Your task to perform on an android device: Search for the best selling TV on Best Buy. Image 0: 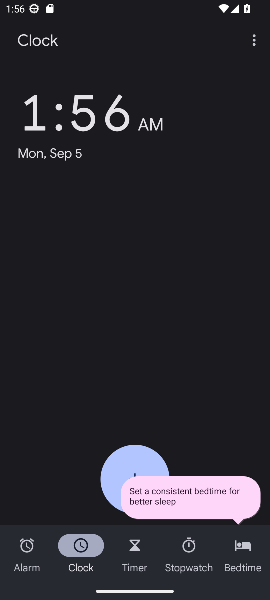
Step 0: press home button
Your task to perform on an android device: Search for the best selling TV on Best Buy. Image 1: 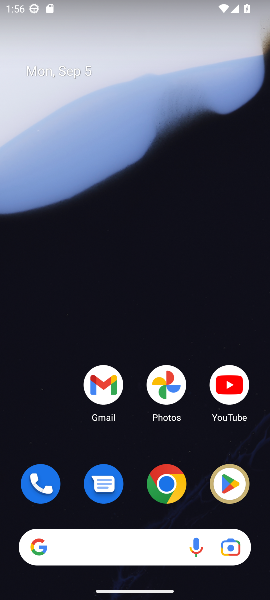
Step 1: click (168, 484)
Your task to perform on an android device: Search for the best selling TV on Best Buy. Image 2: 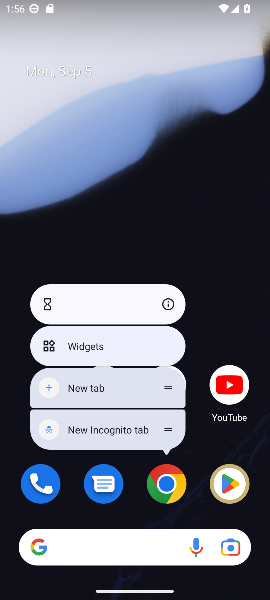
Step 2: click (167, 490)
Your task to perform on an android device: Search for the best selling TV on Best Buy. Image 3: 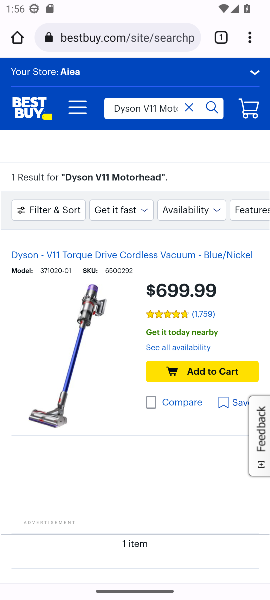
Step 3: click (191, 104)
Your task to perform on an android device: Search for the best selling TV on Best Buy. Image 4: 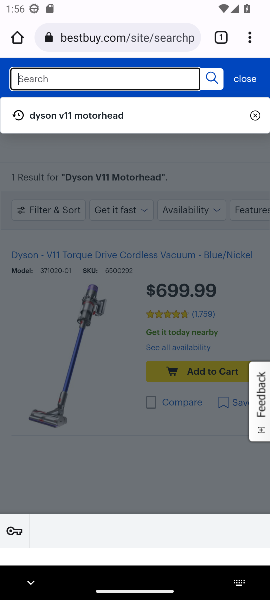
Step 4: type "best selling TV"
Your task to perform on an android device: Search for the best selling TV on Best Buy. Image 5: 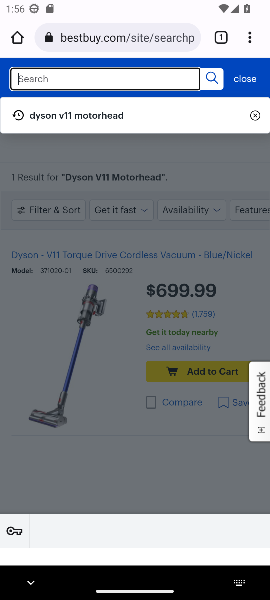
Step 5: press enter
Your task to perform on an android device: Search for the best selling TV on Best Buy. Image 6: 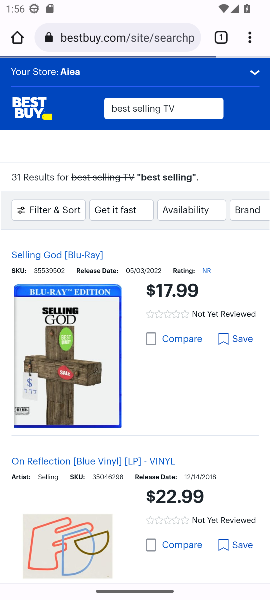
Step 6: drag from (134, 542) to (183, 241)
Your task to perform on an android device: Search for the best selling TV on Best Buy. Image 7: 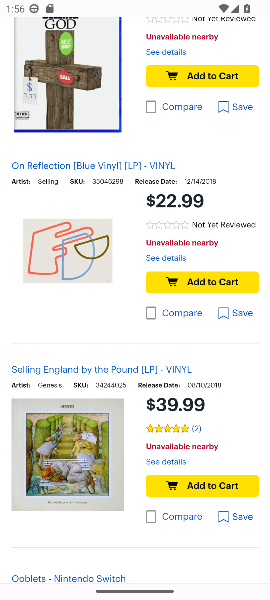
Step 7: drag from (169, 471) to (139, 525)
Your task to perform on an android device: Search for the best selling TV on Best Buy. Image 8: 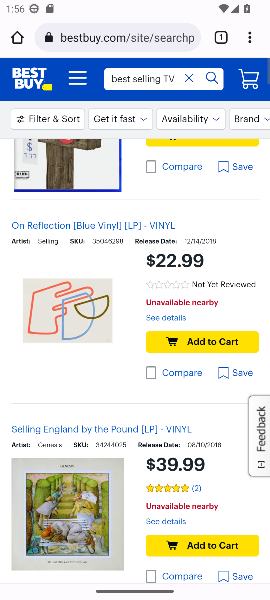
Step 8: click (191, 73)
Your task to perform on an android device: Search for the best selling TV on Best Buy. Image 9: 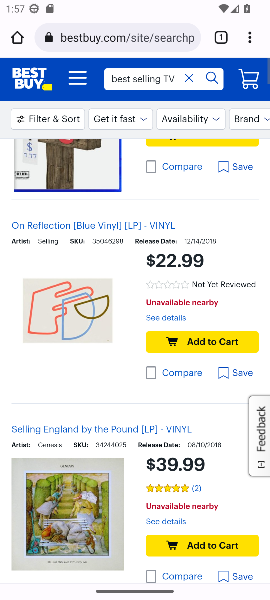
Step 9: click (191, 72)
Your task to perform on an android device: Search for the best selling TV on Best Buy. Image 10: 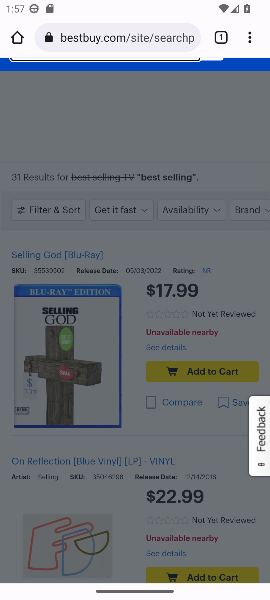
Step 10: click (188, 77)
Your task to perform on an android device: Search for the best selling TV on Best Buy. Image 11: 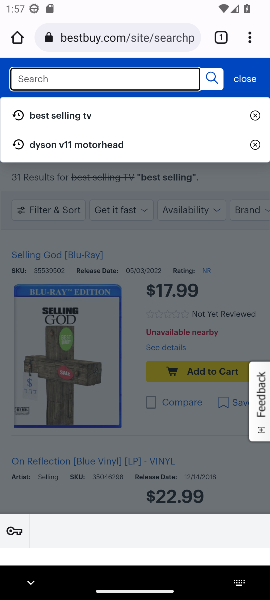
Step 11: type " TV"
Your task to perform on an android device: Search for the best selling TV on Best Buy. Image 12: 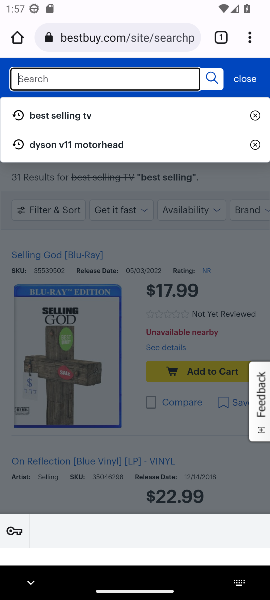
Step 12: press enter
Your task to perform on an android device: Search for the best selling TV on Best Buy. Image 13: 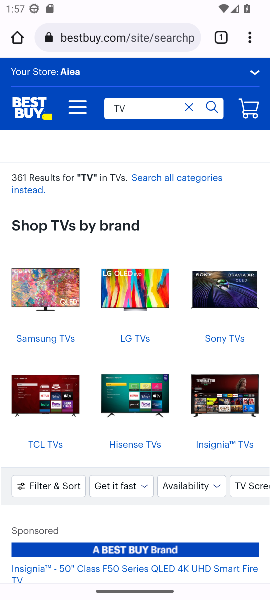
Step 13: drag from (168, 457) to (217, 340)
Your task to perform on an android device: Search for the best selling TV on Best Buy. Image 14: 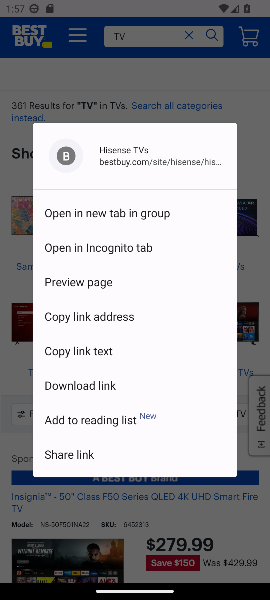
Step 14: click (258, 385)
Your task to perform on an android device: Search for the best selling TV on Best Buy. Image 15: 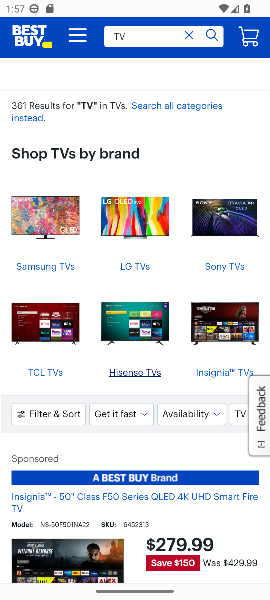
Step 15: click (260, 357)
Your task to perform on an android device: Search for the best selling TV on Best Buy. Image 16: 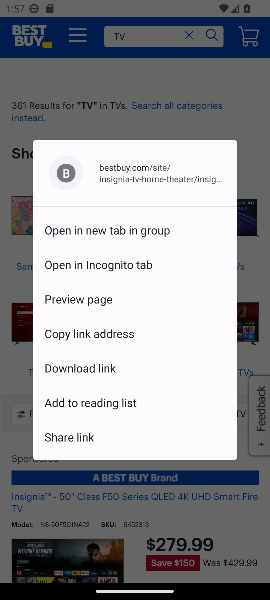
Step 16: click (257, 165)
Your task to perform on an android device: Search for the best selling TV on Best Buy. Image 17: 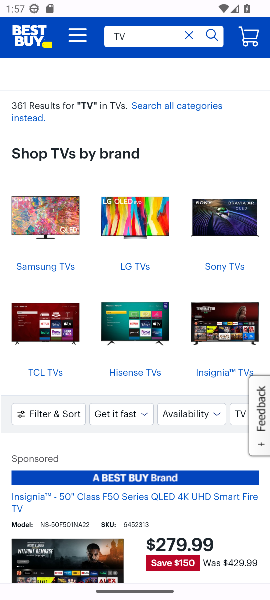
Step 17: task complete